Your task to perform on an android device: Open calendar and show me the third week of next month Image 0: 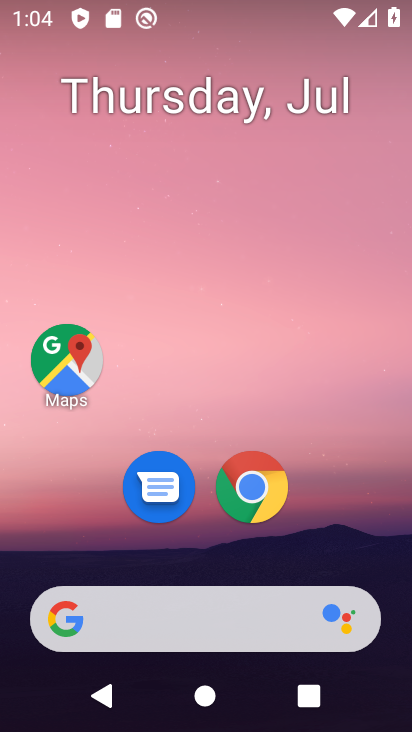
Step 0: drag from (383, 583) to (245, 147)
Your task to perform on an android device: Open calendar and show me the third week of next month Image 1: 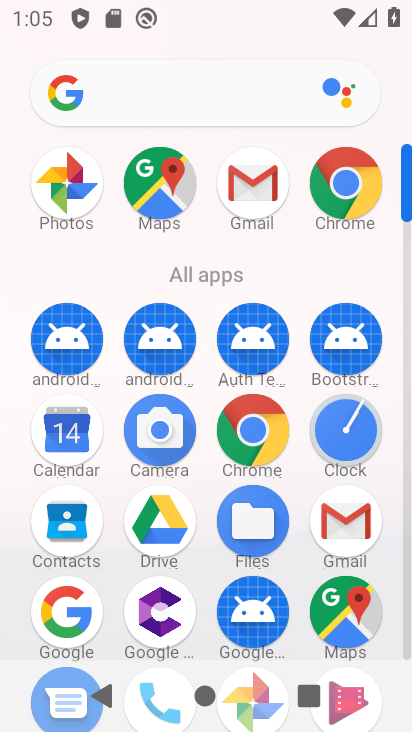
Step 1: click (64, 450)
Your task to perform on an android device: Open calendar and show me the third week of next month Image 2: 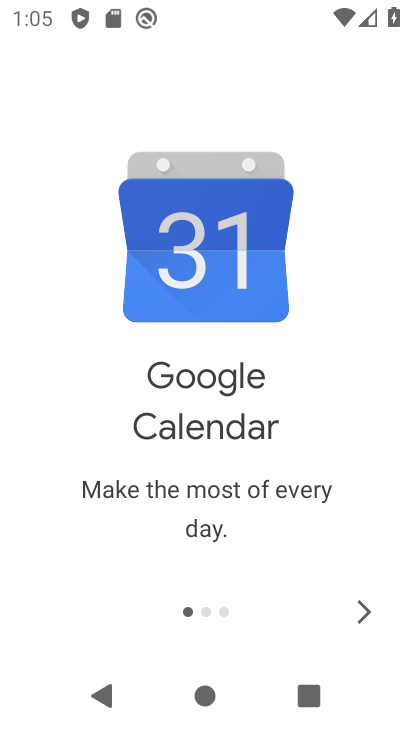
Step 2: click (364, 615)
Your task to perform on an android device: Open calendar and show me the third week of next month Image 3: 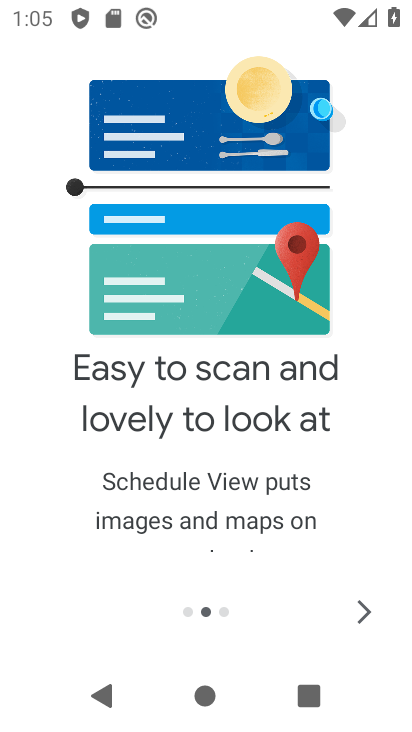
Step 3: click (364, 616)
Your task to perform on an android device: Open calendar and show me the third week of next month Image 4: 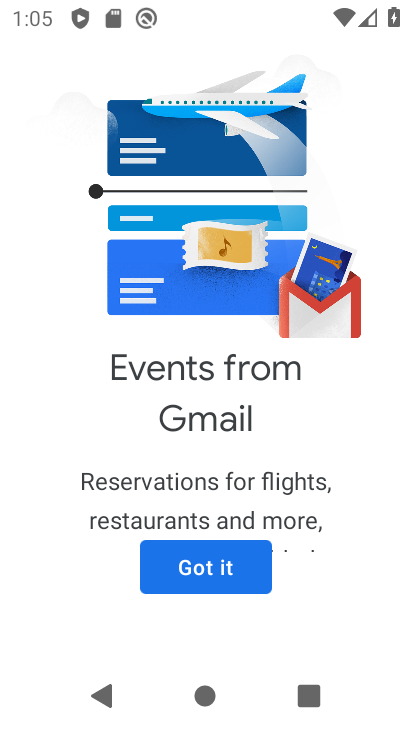
Step 4: click (196, 572)
Your task to perform on an android device: Open calendar and show me the third week of next month Image 5: 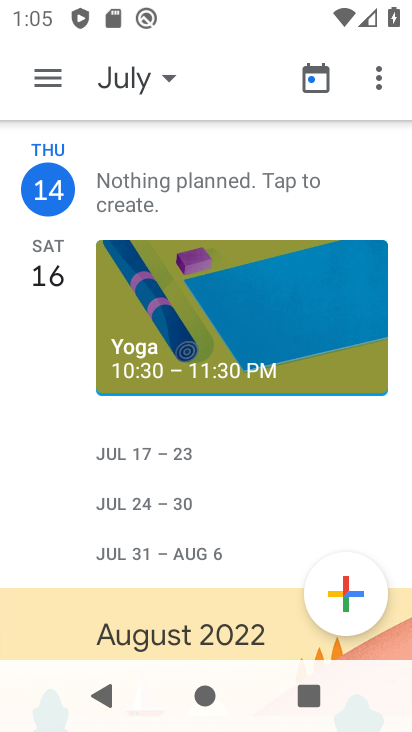
Step 5: click (159, 78)
Your task to perform on an android device: Open calendar and show me the third week of next month Image 6: 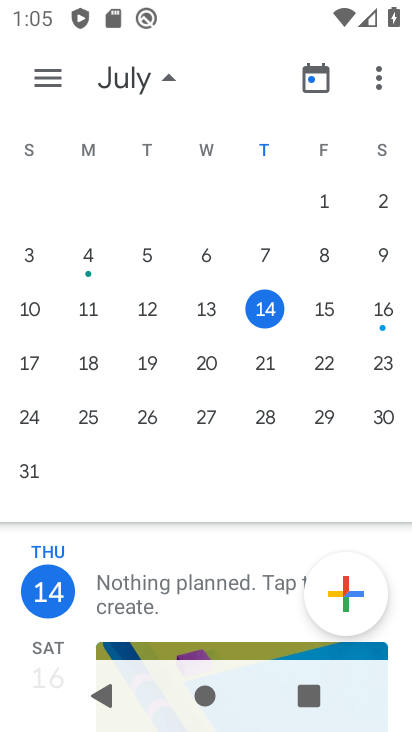
Step 6: click (39, 83)
Your task to perform on an android device: Open calendar and show me the third week of next month Image 7: 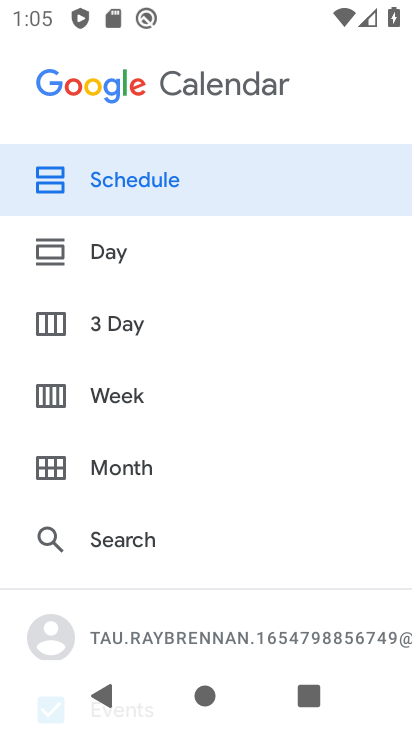
Step 7: click (121, 387)
Your task to perform on an android device: Open calendar and show me the third week of next month Image 8: 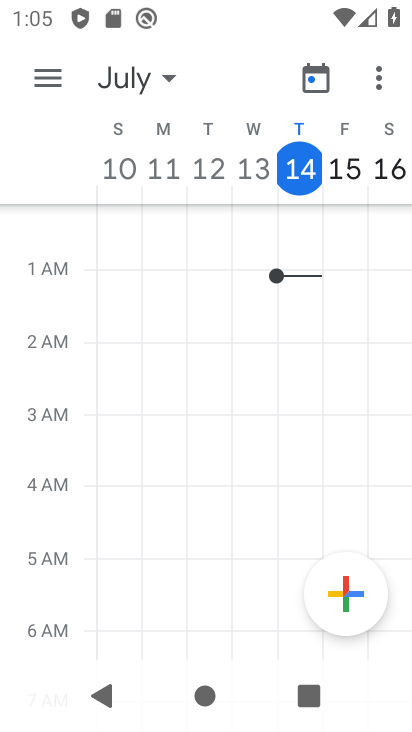
Step 8: click (159, 76)
Your task to perform on an android device: Open calendar and show me the third week of next month Image 9: 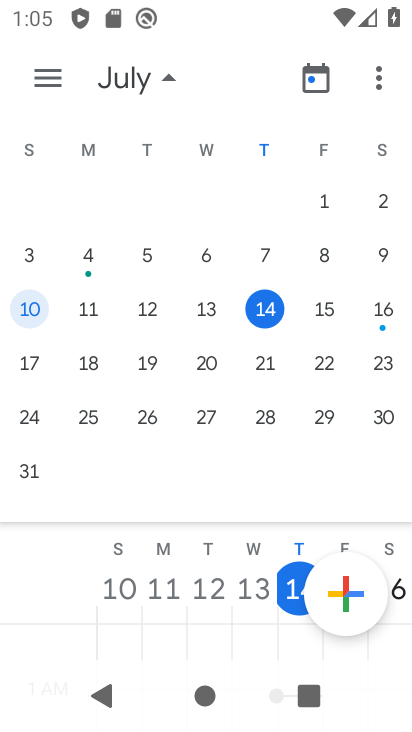
Step 9: drag from (376, 333) to (116, 337)
Your task to perform on an android device: Open calendar and show me the third week of next month Image 10: 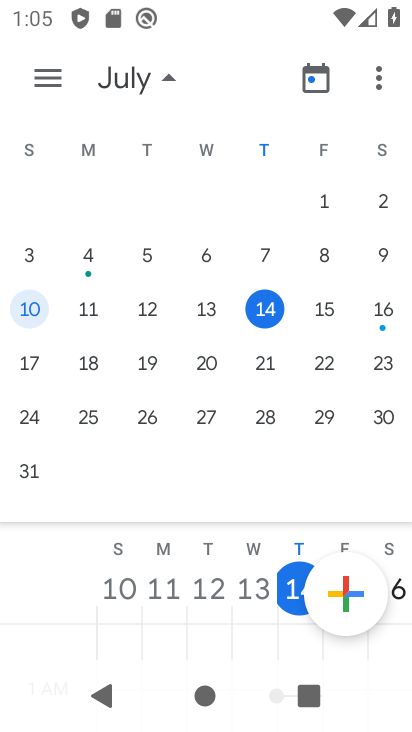
Step 10: drag from (339, 330) to (23, 328)
Your task to perform on an android device: Open calendar and show me the third week of next month Image 11: 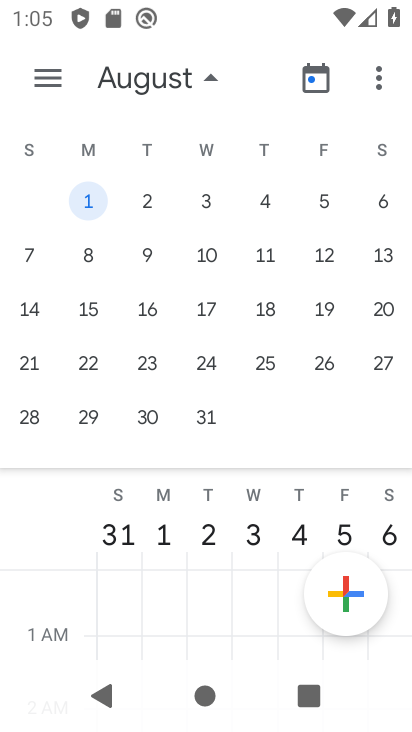
Step 11: click (143, 311)
Your task to perform on an android device: Open calendar and show me the third week of next month Image 12: 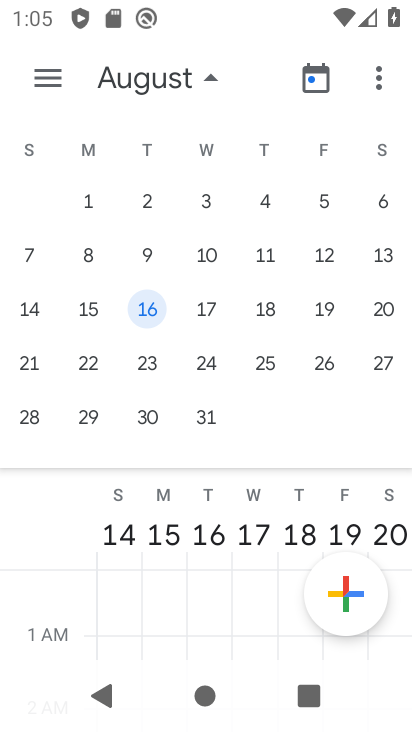
Step 12: task complete